Your task to perform on an android device: What is the recent news? Image 0: 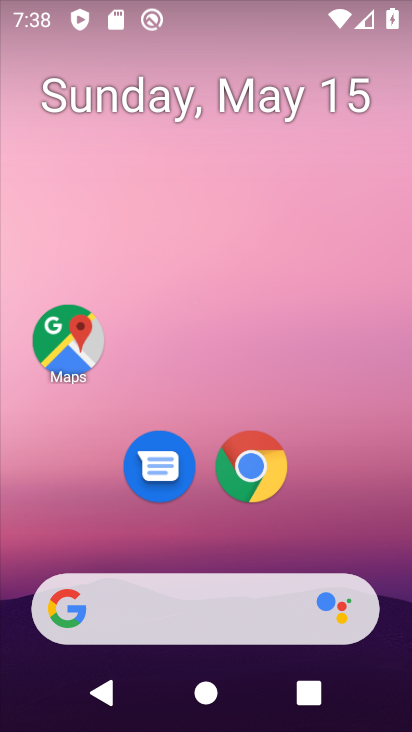
Step 0: click (186, 587)
Your task to perform on an android device: What is the recent news? Image 1: 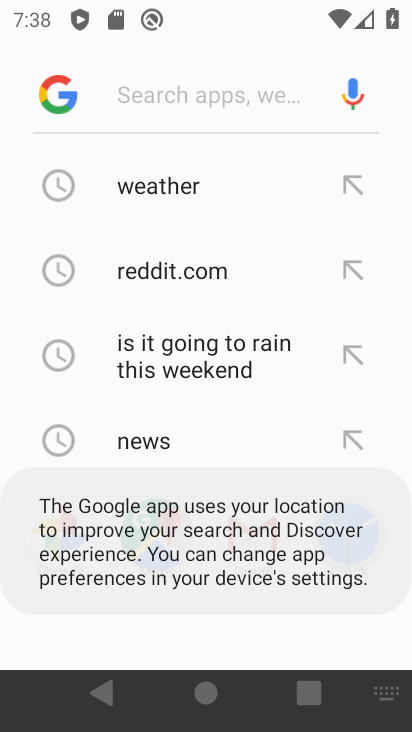
Step 1: click (145, 427)
Your task to perform on an android device: What is the recent news? Image 2: 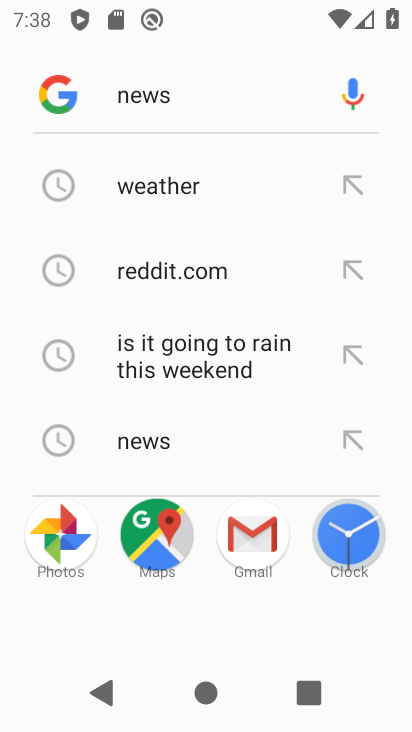
Step 2: click (149, 433)
Your task to perform on an android device: What is the recent news? Image 3: 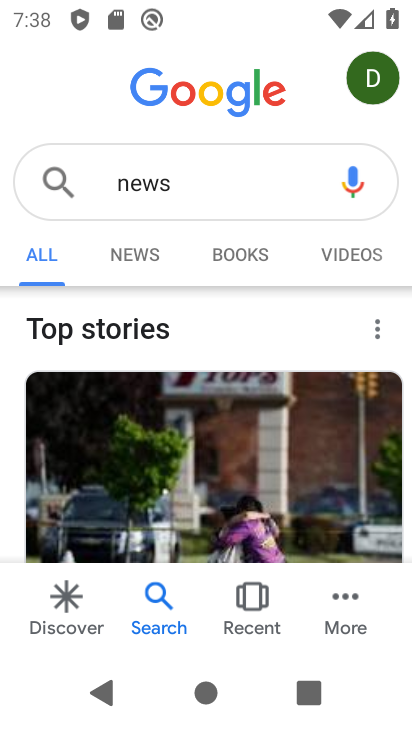
Step 3: click (123, 248)
Your task to perform on an android device: What is the recent news? Image 4: 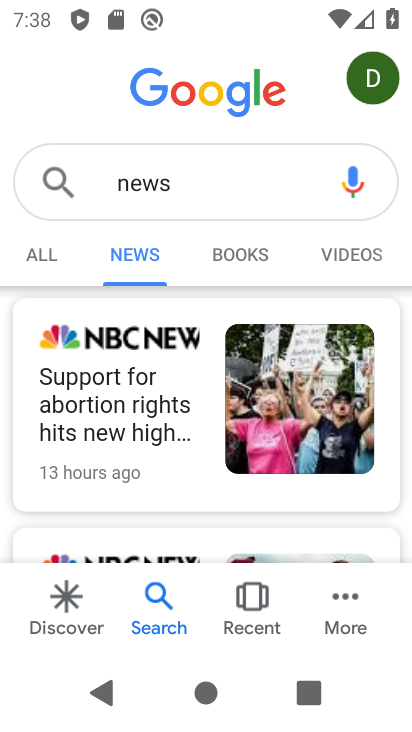
Step 4: task complete